Your task to perform on an android device: add a contact in the contacts app Image 0: 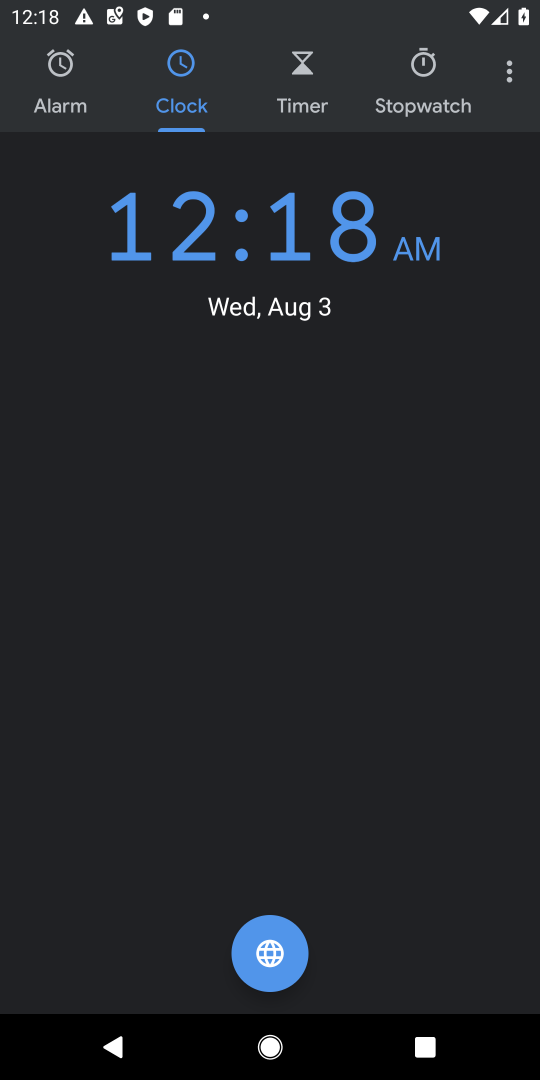
Step 0: press home button
Your task to perform on an android device: add a contact in the contacts app Image 1: 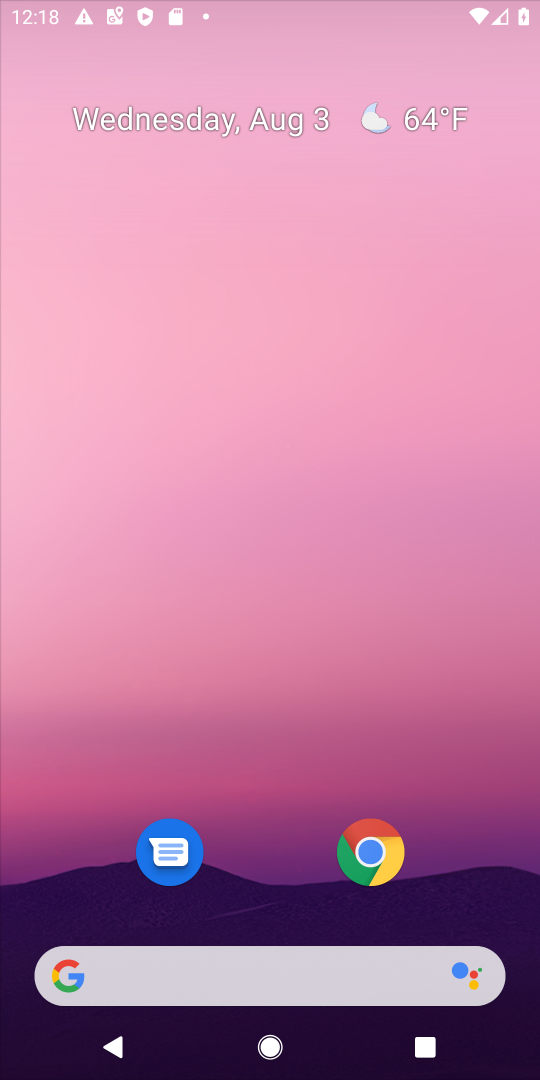
Step 1: drag from (509, 898) to (223, 87)
Your task to perform on an android device: add a contact in the contacts app Image 2: 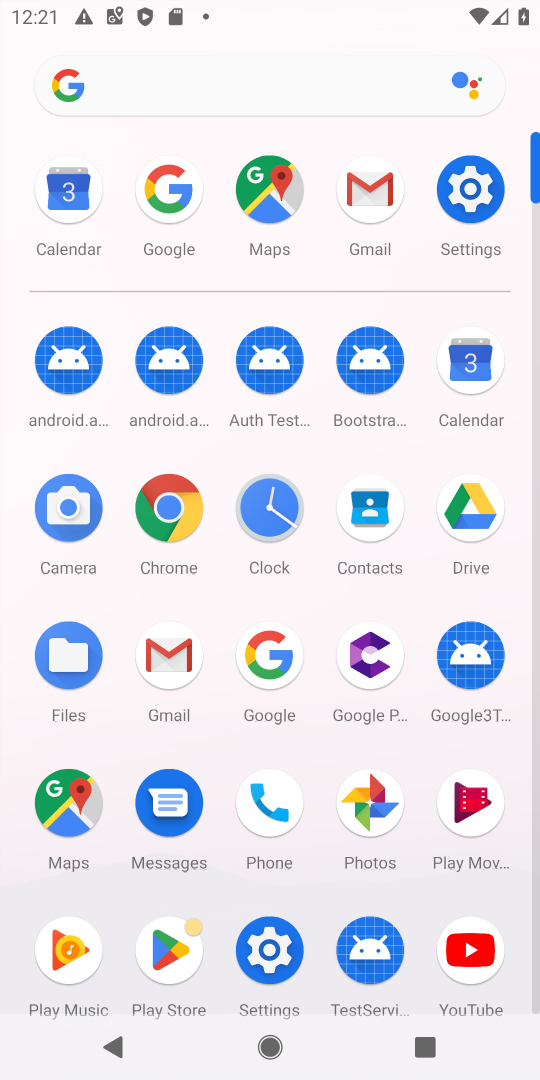
Step 2: click (355, 522)
Your task to perform on an android device: add a contact in the contacts app Image 3: 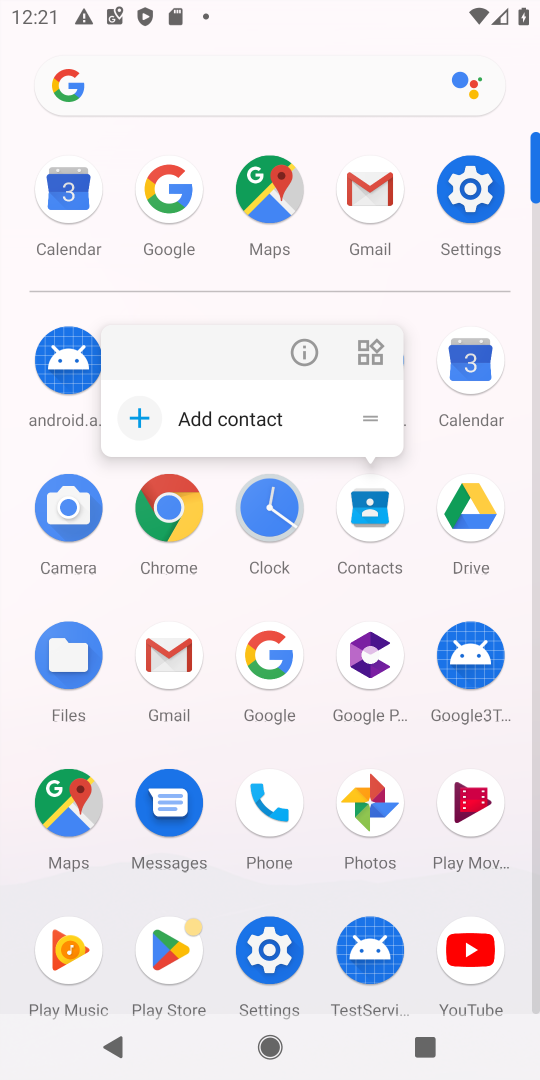
Step 3: click (355, 522)
Your task to perform on an android device: add a contact in the contacts app Image 4: 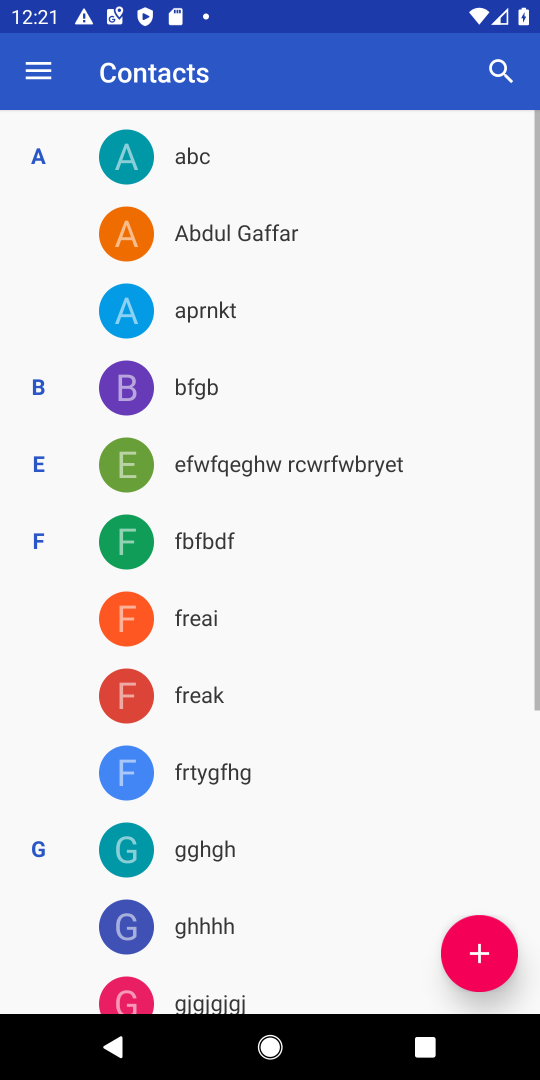
Step 4: click (491, 953)
Your task to perform on an android device: add a contact in the contacts app Image 5: 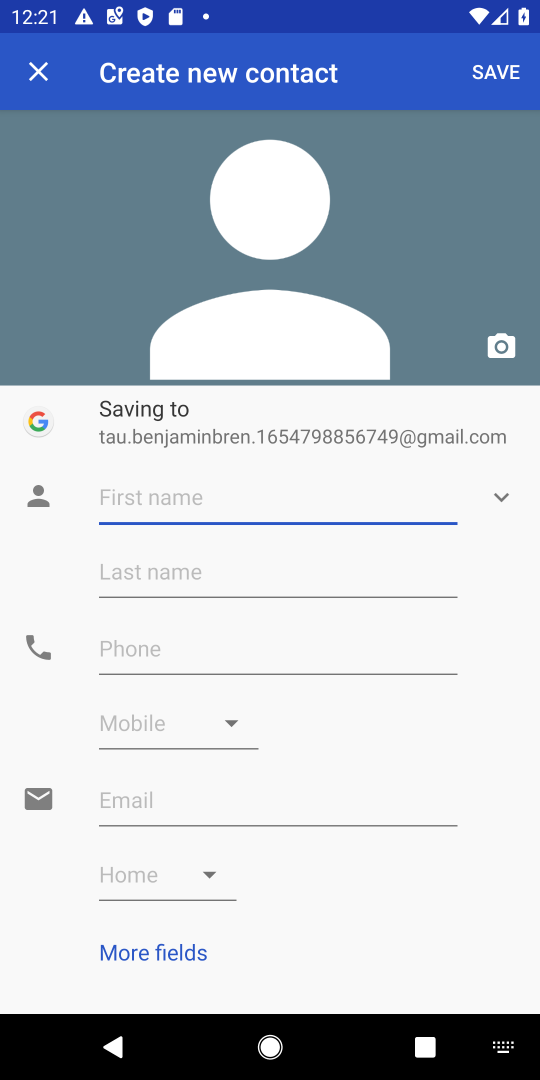
Step 5: type "atul"
Your task to perform on an android device: add a contact in the contacts app Image 6: 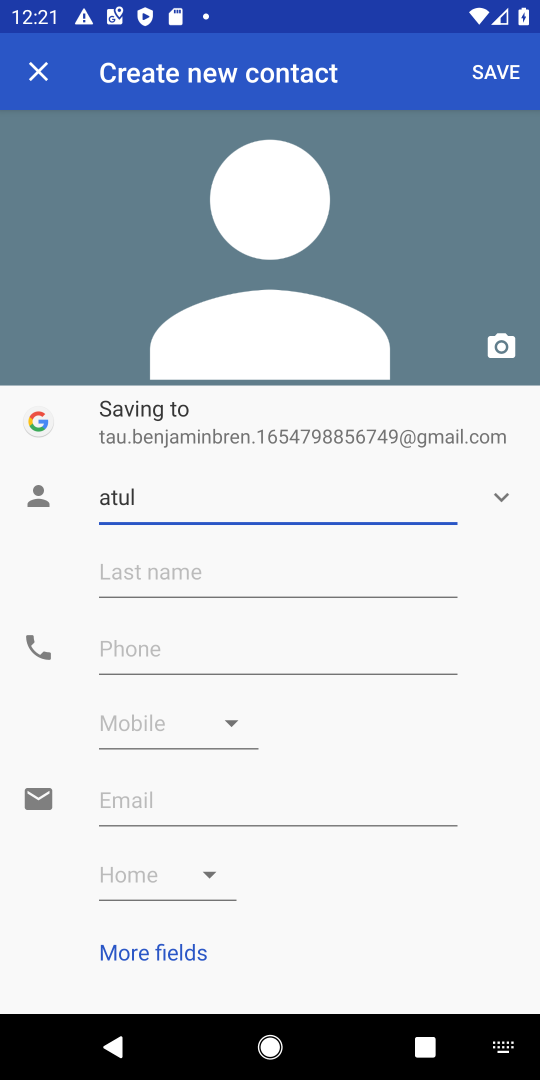
Step 6: click (501, 83)
Your task to perform on an android device: add a contact in the contacts app Image 7: 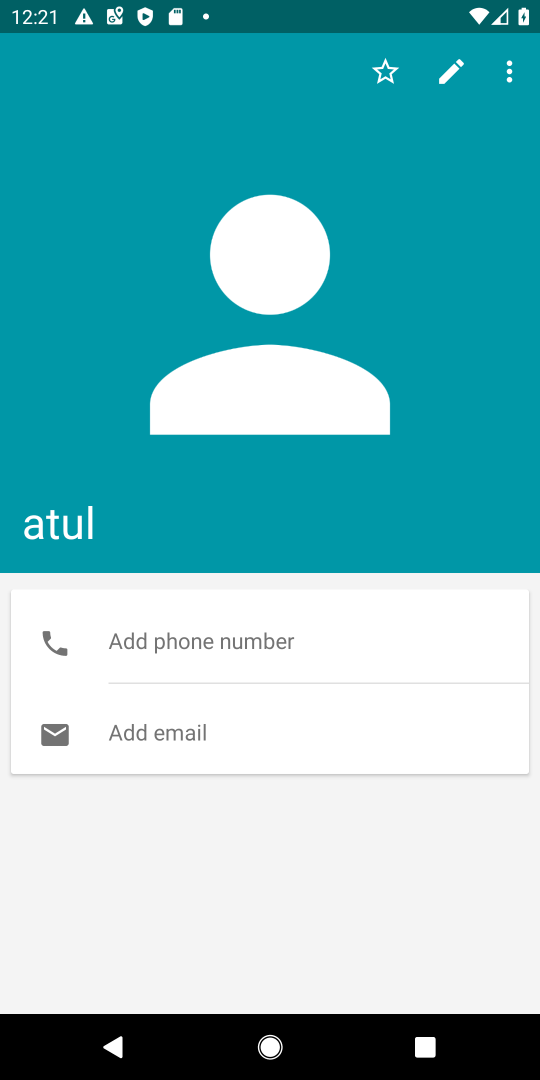
Step 7: task complete